Your task to perform on an android device: Open Chrome and go to settings Image 0: 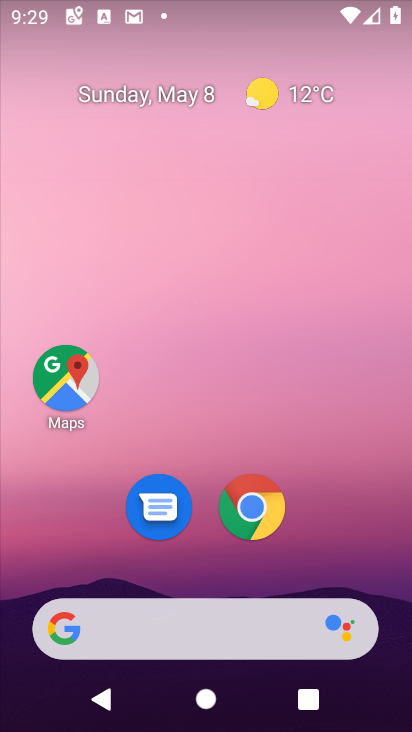
Step 0: click (237, 516)
Your task to perform on an android device: Open Chrome and go to settings Image 1: 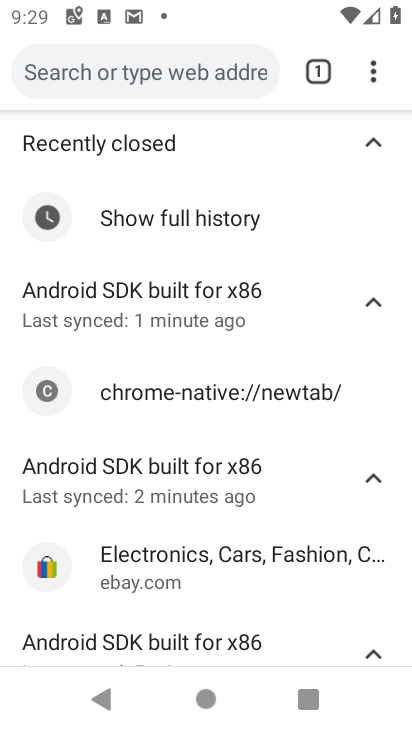
Step 1: drag from (379, 59) to (173, 508)
Your task to perform on an android device: Open Chrome and go to settings Image 2: 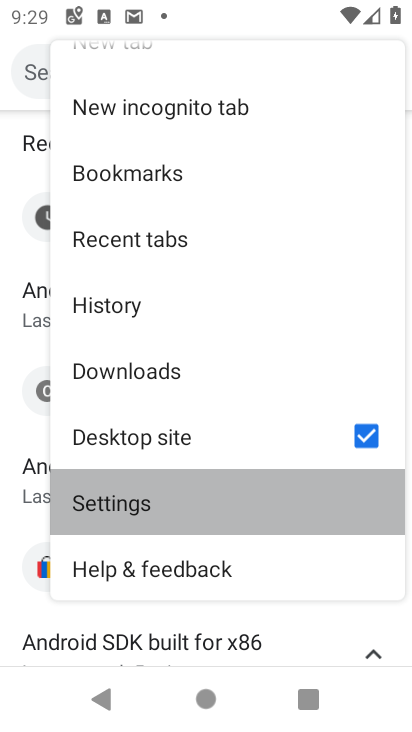
Step 2: click (172, 508)
Your task to perform on an android device: Open Chrome and go to settings Image 3: 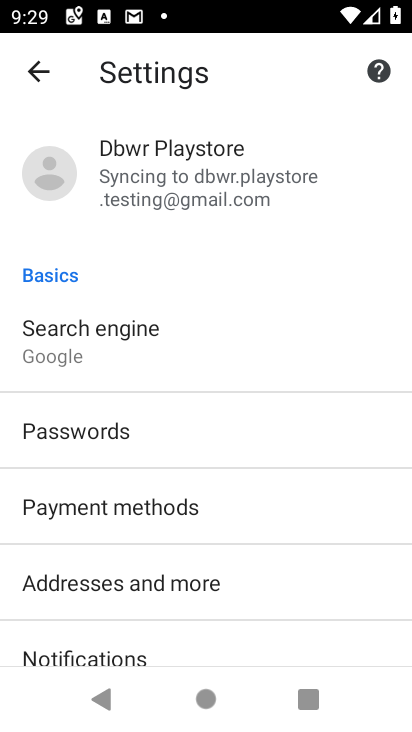
Step 3: task complete